Your task to perform on an android device: Show me the alarms in the clock app Image 0: 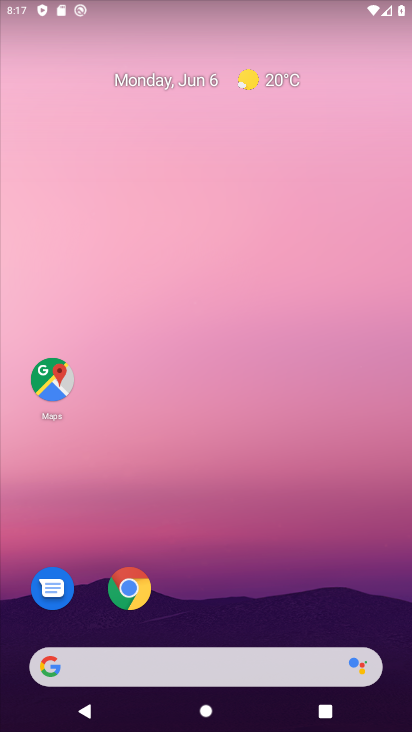
Step 0: click (385, 5)
Your task to perform on an android device: Show me the alarms in the clock app Image 1: 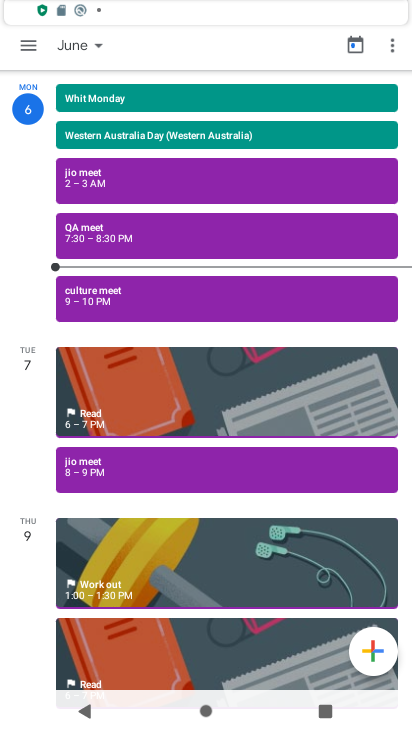
Step 1: press home button
Your task to perform on an android device: Show me the alarms in the clock app Image 2: 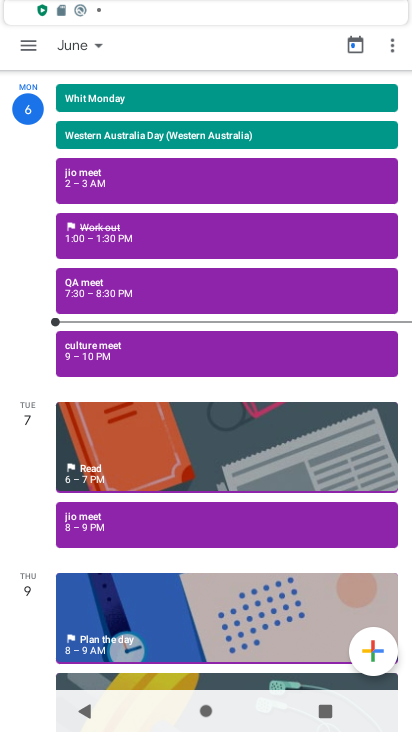
Step 2: drag from (385, 5) to (389, 213)
Your task to perform on an android device: Show me the alarms in the clock app Image 3: 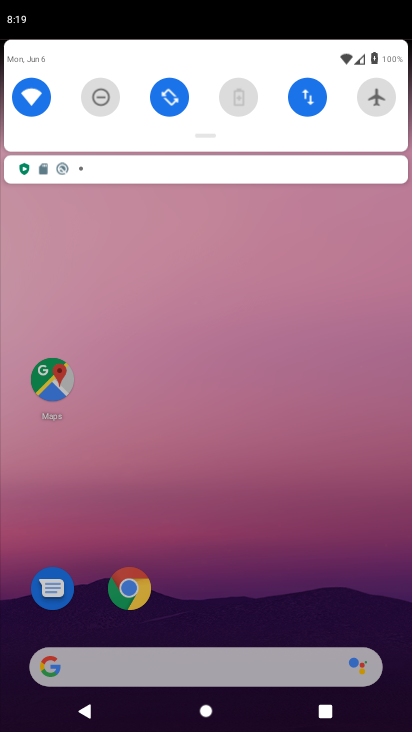
Step 3: drag from (271, 579) to (261, 8)
Your task to perform on an android device: Show me the alarms in the clock app Image 4: 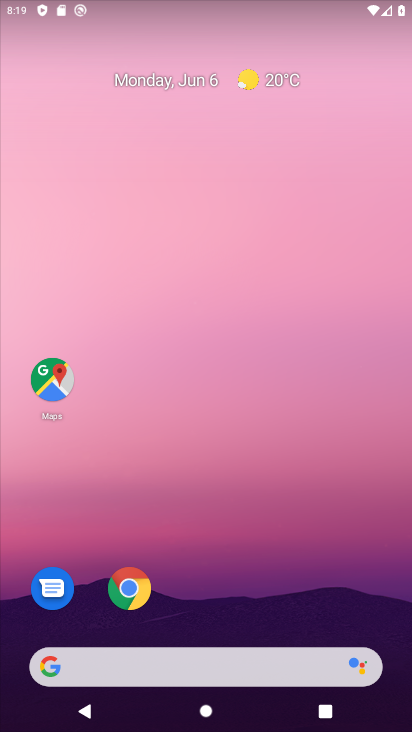
Step 4: drag from (324, 521) to (317, 13)
Your task to perform on an android device: Show me the alarms in the clock app Image 5: 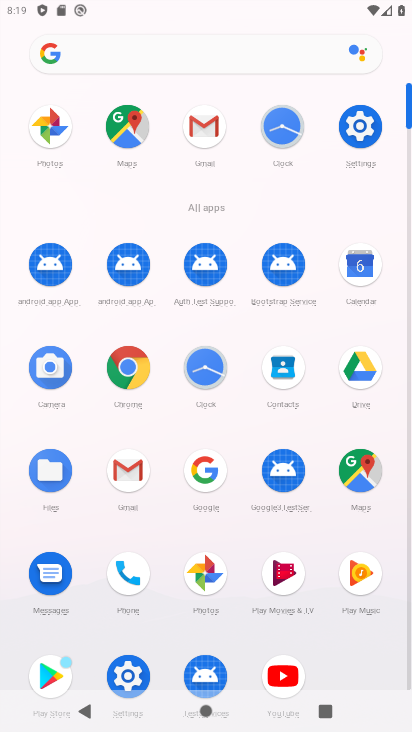
Step 5: click (204, 364)
Your task to perform on an android device: Show me the alarms in the clock app Image 6: 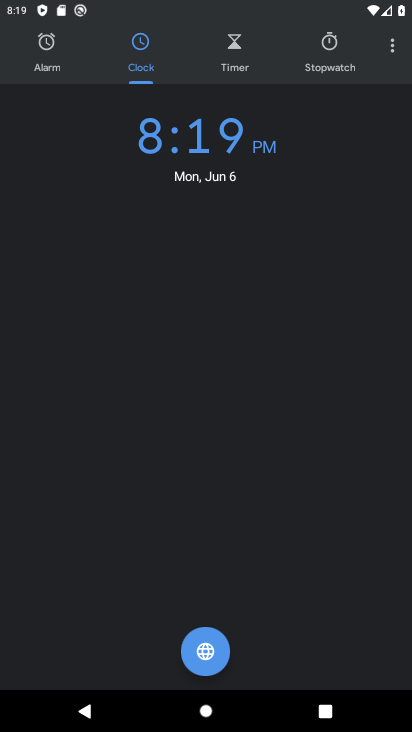
Step 6: click (55, 55)
Your task to perform on an android device: Show me the alarms in the clock app Image 7: 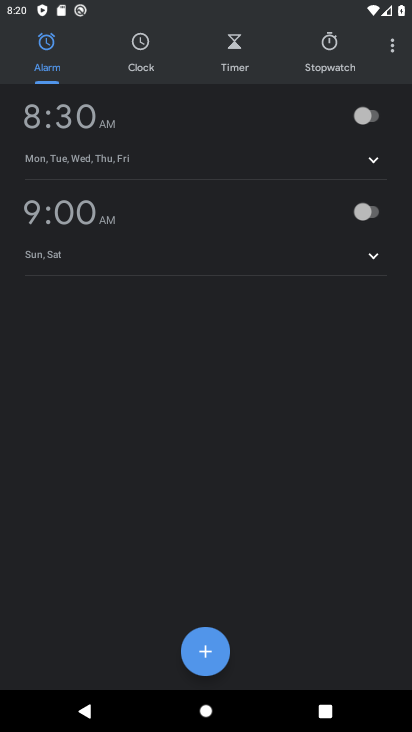
Step 7: task complete